Your task to perform on an android device: Open the stopwatch Image 0: 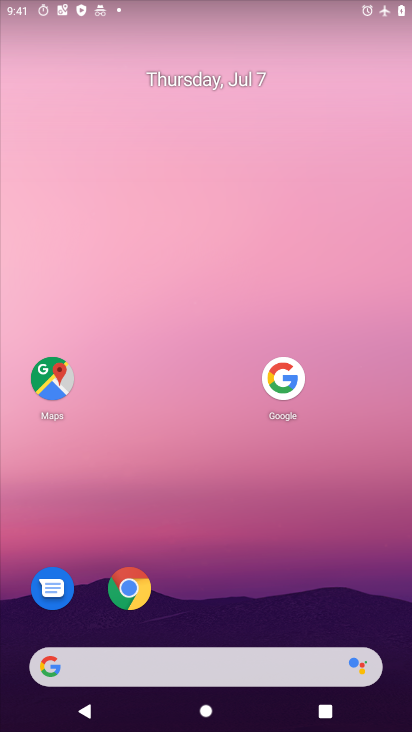
Step 0: drag from (210, 678) to (259, 158)
Your task to perform on an android device: Open the stopwatch Image 1: 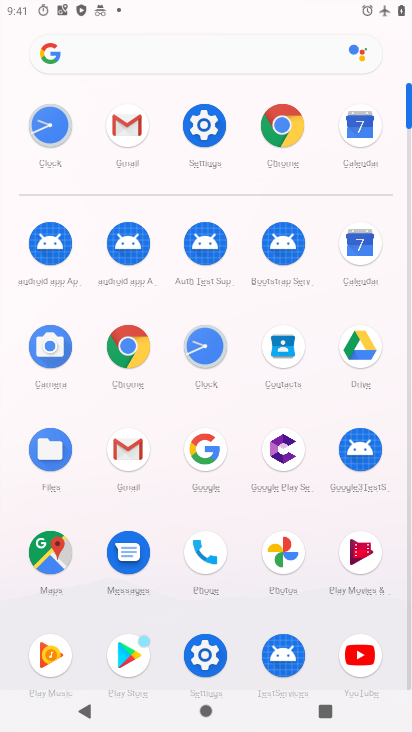
Step 1: click (210, 353)
Your task to perform on an android device: Open the stopwatch Image 2: 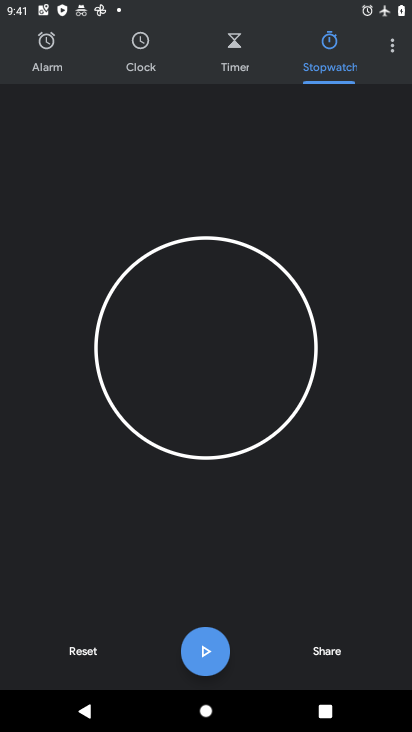
Step 2: task complete